Your task to perform on an android device: search for starred emails in the gmail app Image 0: 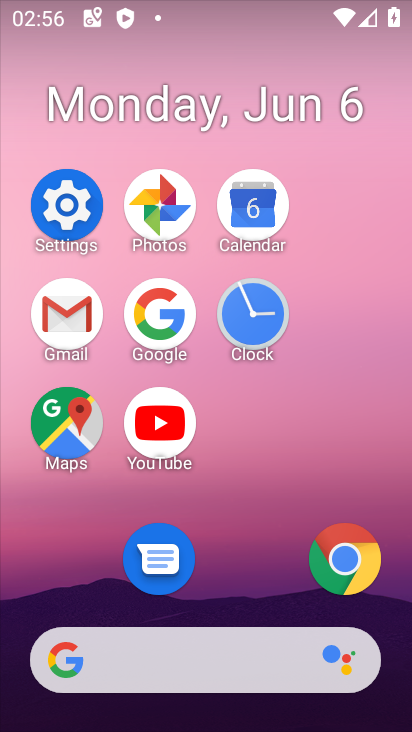
Step 0: click (87, 330)
Your task to perform on an android device: search for starred emails in the gmail app Image 1: 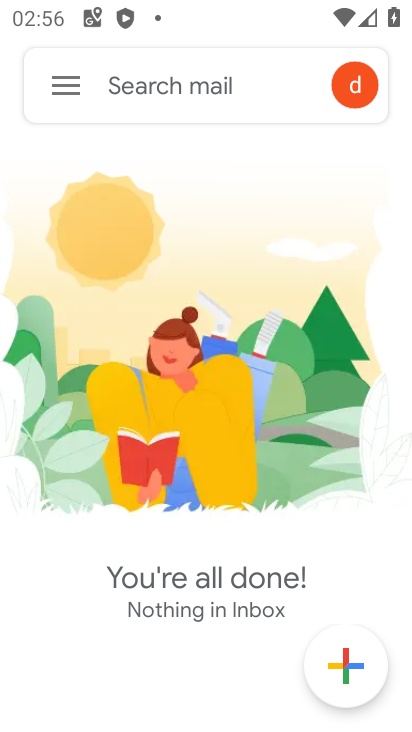
Step 1: click (70, 80)
Your task to perform on an android device: search for starred emails in the gmail app Image 2: 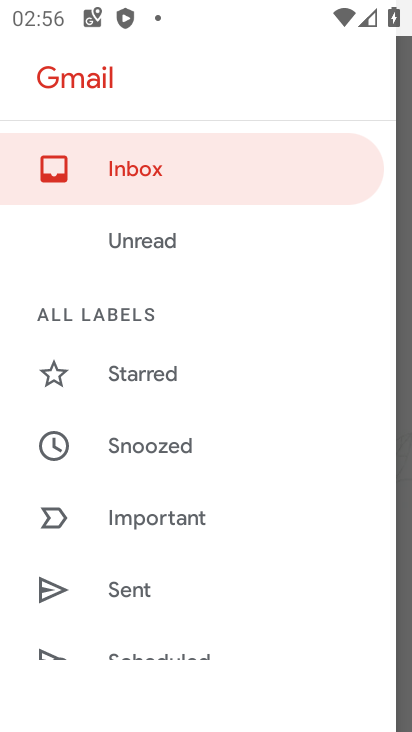
Step 2: click (124, 370)
Your task to perform on an android device: search for starred emails in the gmail app Image 3: 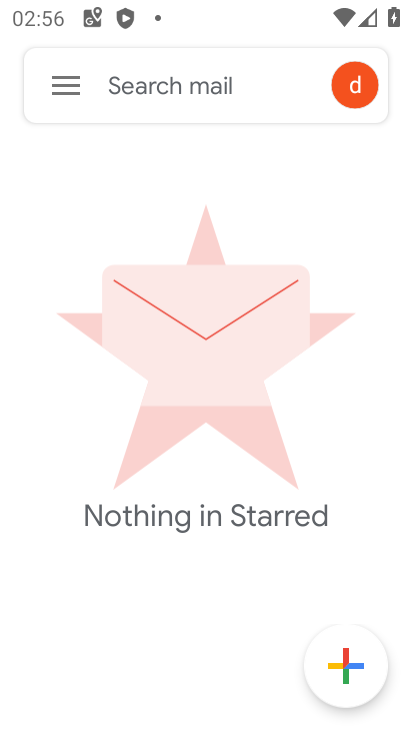
Step 3: task complete